Your task to perform on an android device: What is the news today? Image 0: 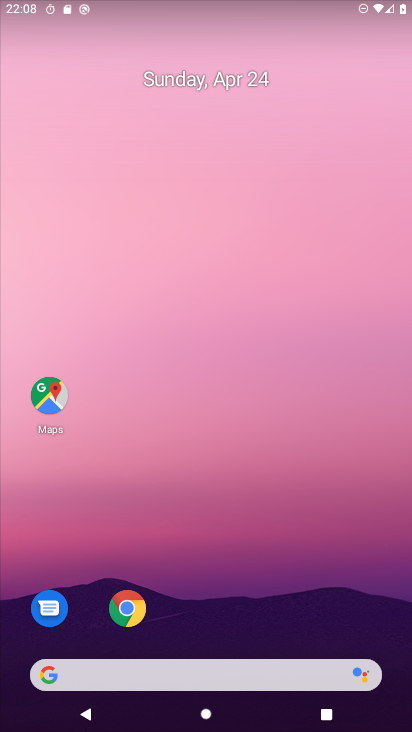
Step 0: click (179, 672)
Your task to perform on an android device: What is the news today? Image 1: 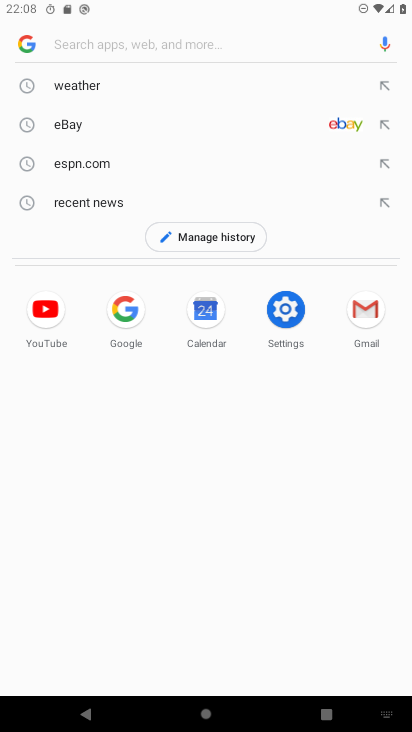
Step 1: click (31, 38)
Your task to perform on an android device: What is the news today? Image 2: 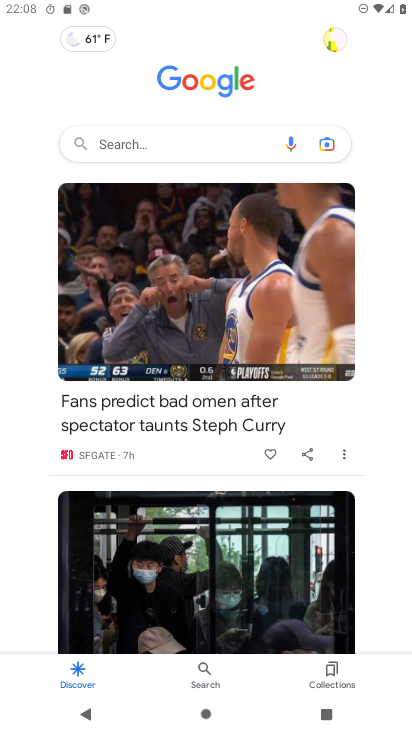
Step 2: click (257, 240)
Your task to perform on an android device: What is the news today? Image 3: 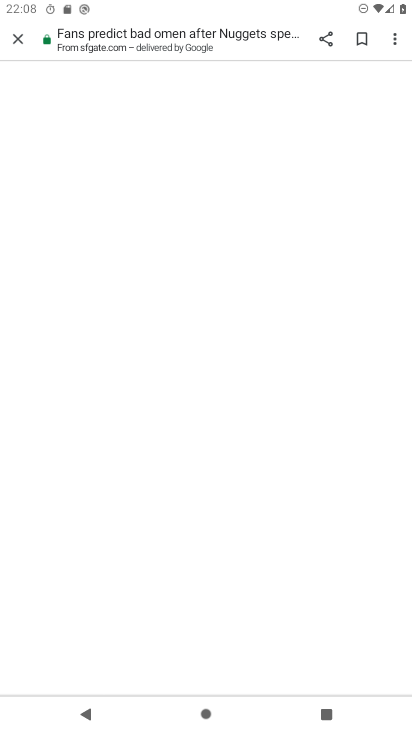
Step 3: task complete